Your task to perform on an android device: uninstall "Google Translate" Image 0: 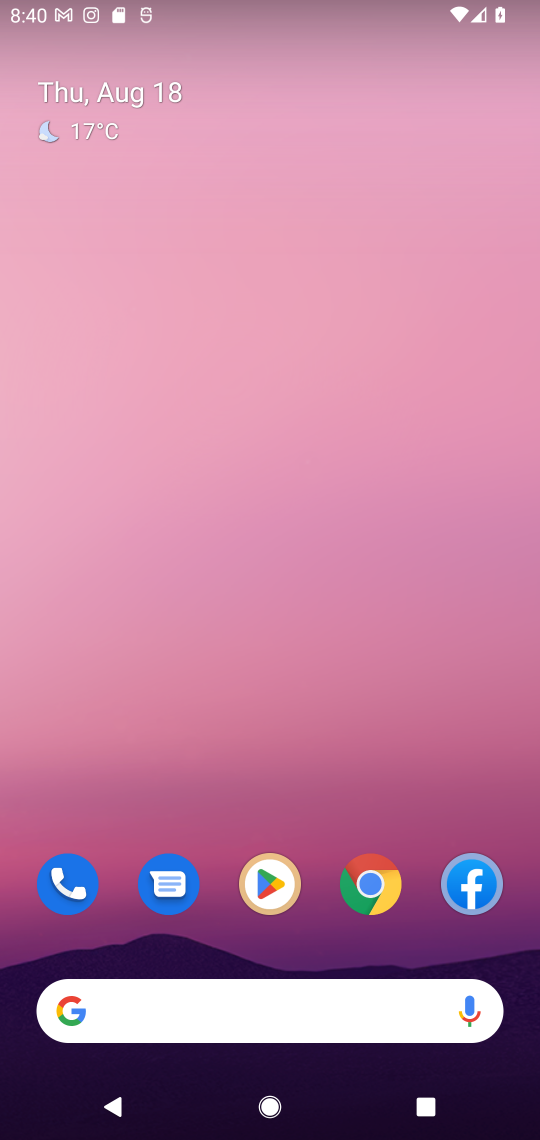
Step 0: drag from (260, 1033) to (278, 153)
Your task to perform on an android device: uninstall "Google Translate" Image 1: 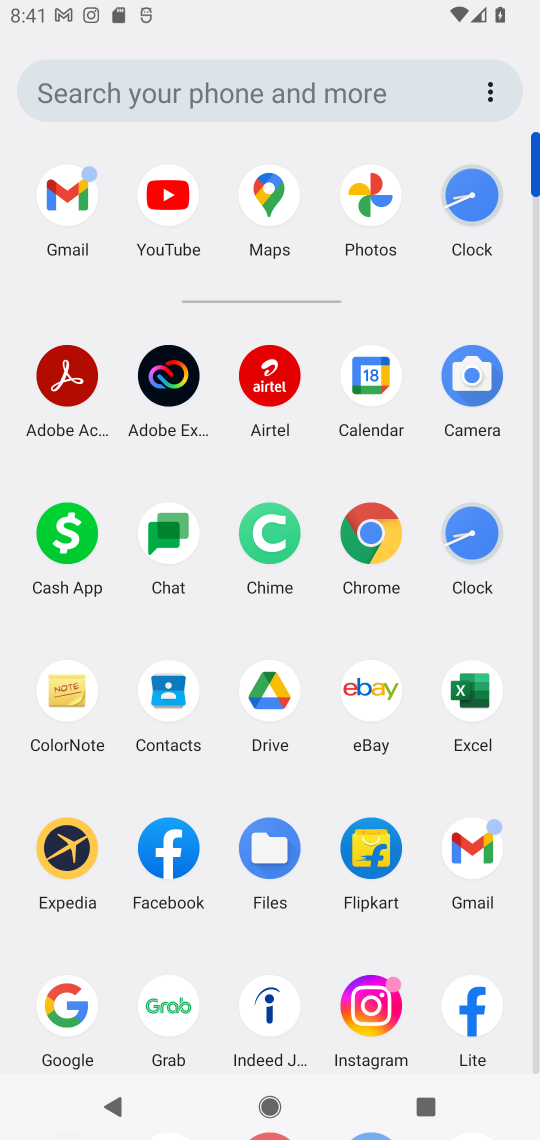
Step 1: drag from (317, 821) to (310, 290)
Your task to perform on an android device: uninstall "Google Translate" Image 2: 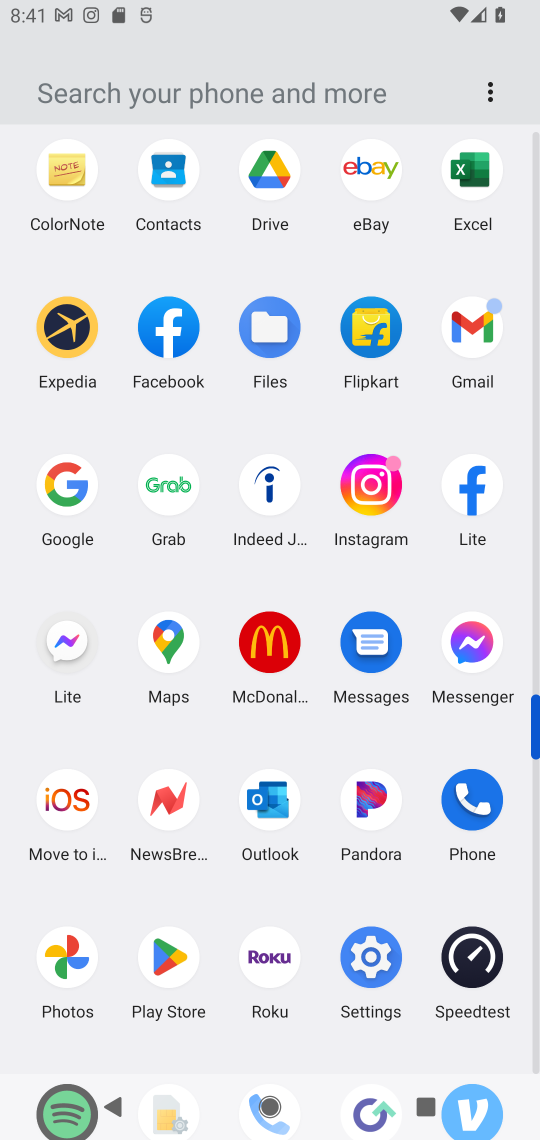
Step 2: click (173, 952)
Your task to perform on an android device: uninstall "Google Translate" Image 3: 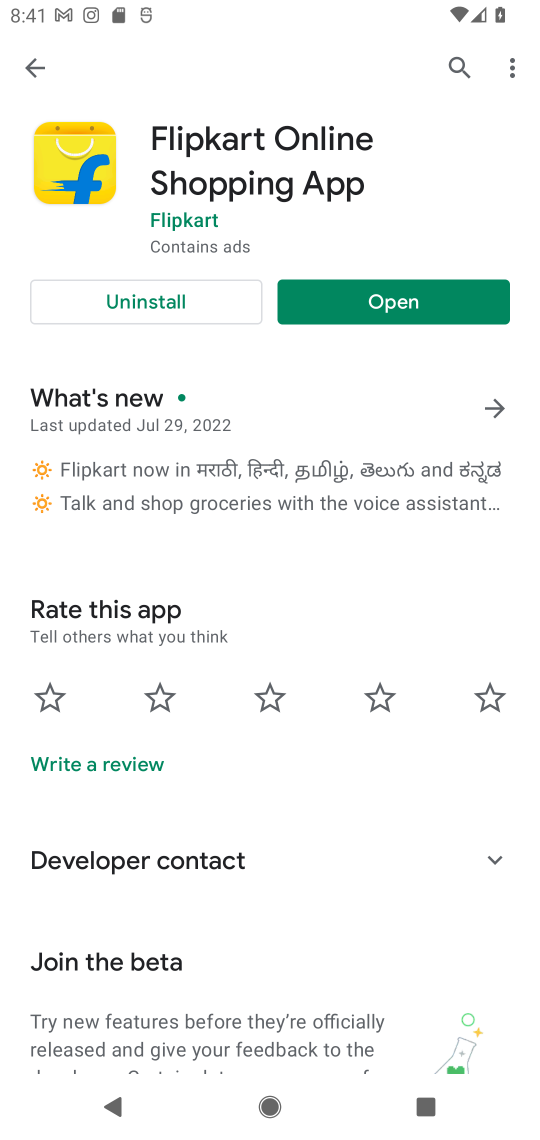
Step 3: press back button
Your task to perform on an android device: uninstall "Google Translate" Image 4: 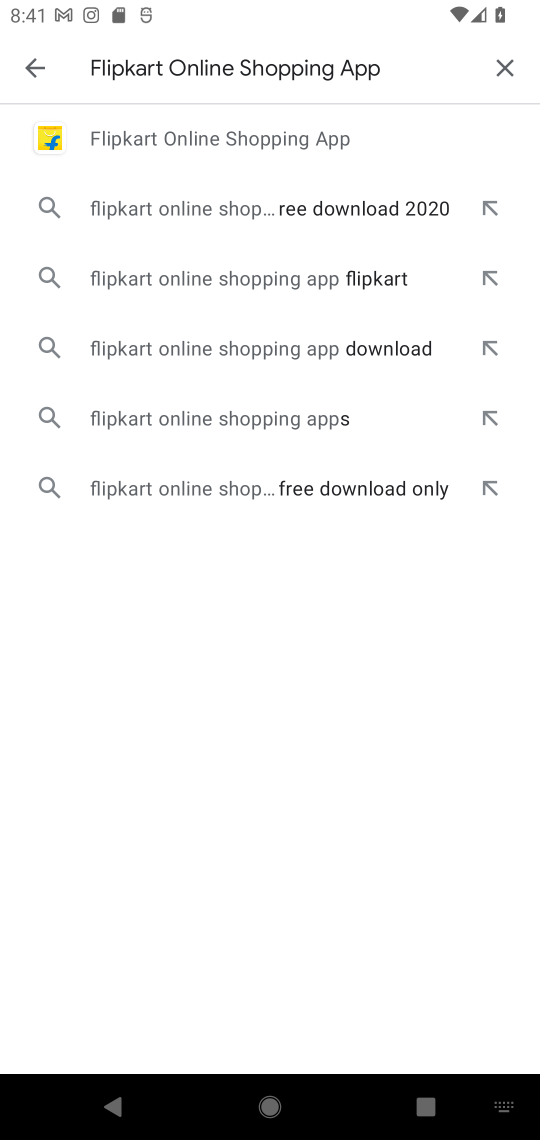
Step 4: click (502, 57)
Your task to perform on an android device: uninstall "Google Translate" Image 5: 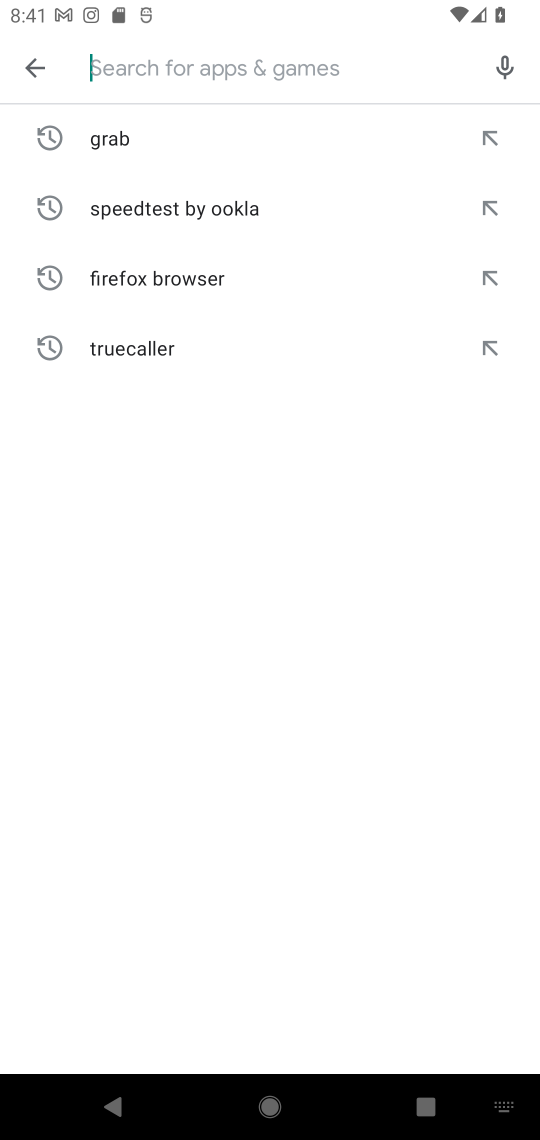
Step 5: press back button
Your task to perform on an android device: uninstall "Google Translate" Image 6: 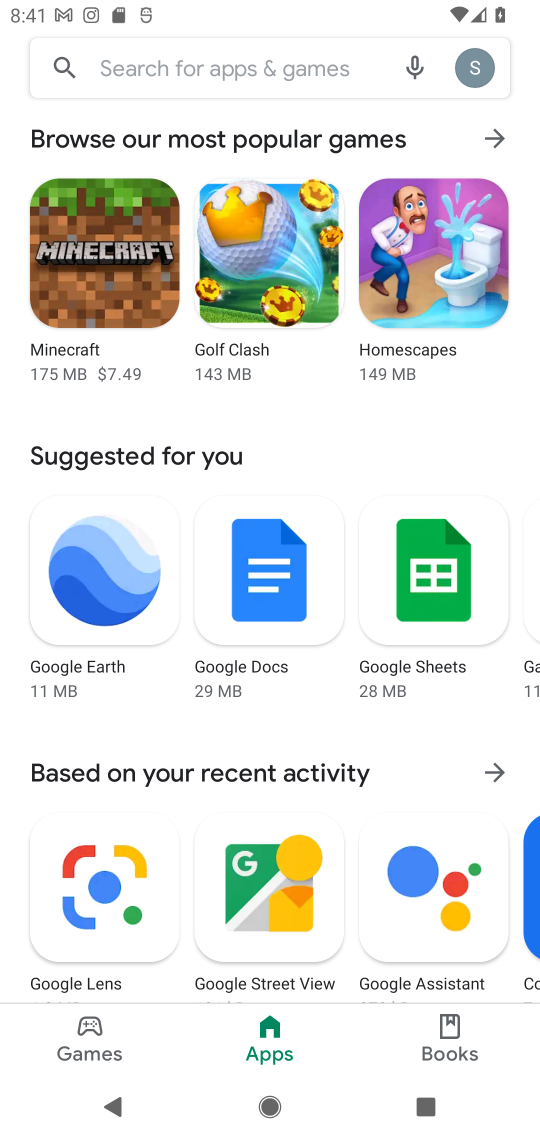
Step 6: click (274, 79)
Your task to perform on an android device: uninstall "Google Translate" Image 7: 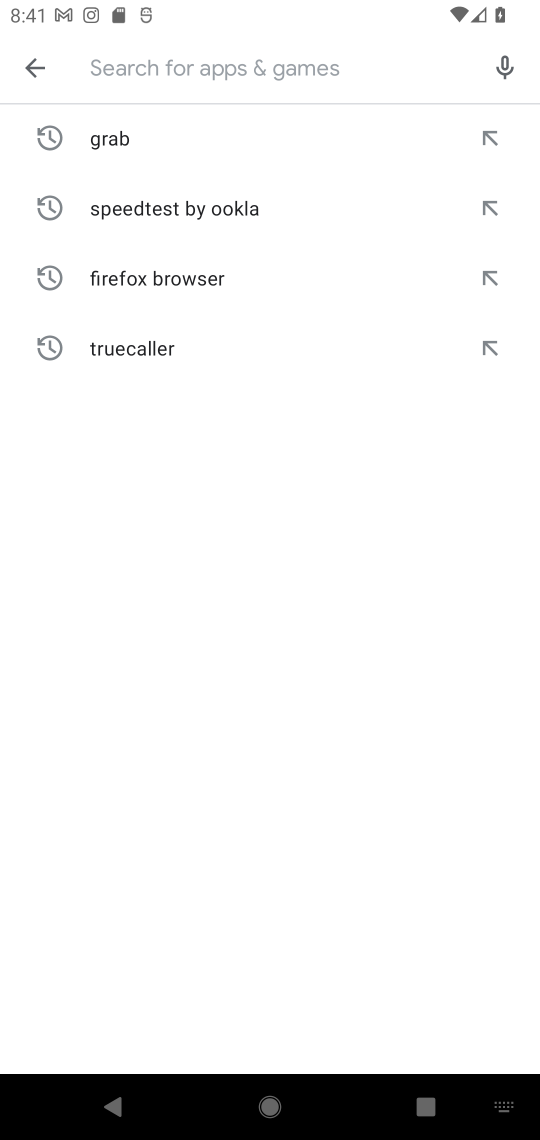
Step 7: type "Google Translate"
Your task to perform on an android device: uninstall "Google Translate" Image 8: 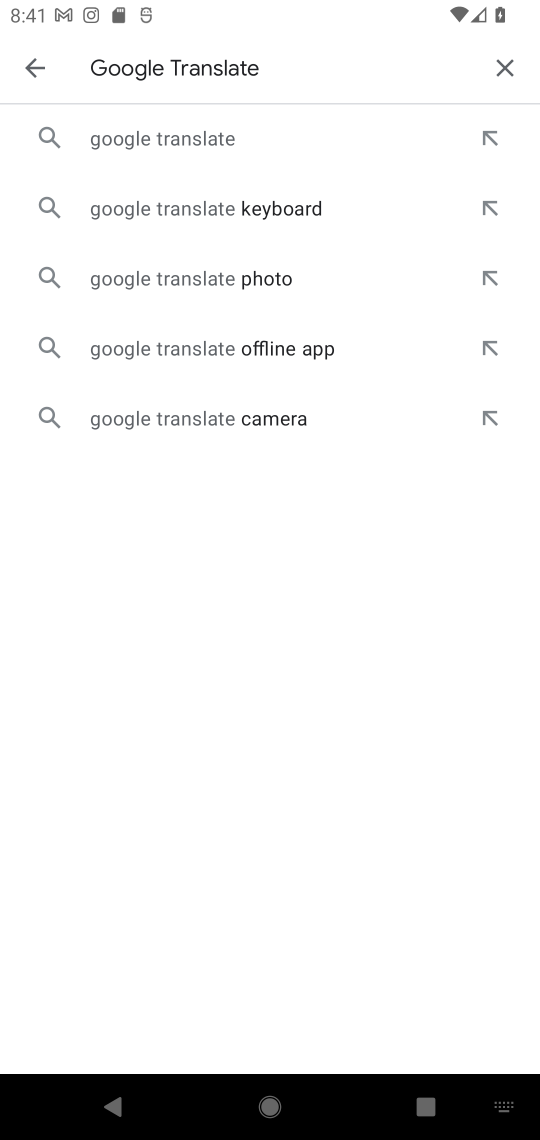
Step 8: click (190, 151)
Your task to perform on an android device: uninstall "Google Translate" Image 9: 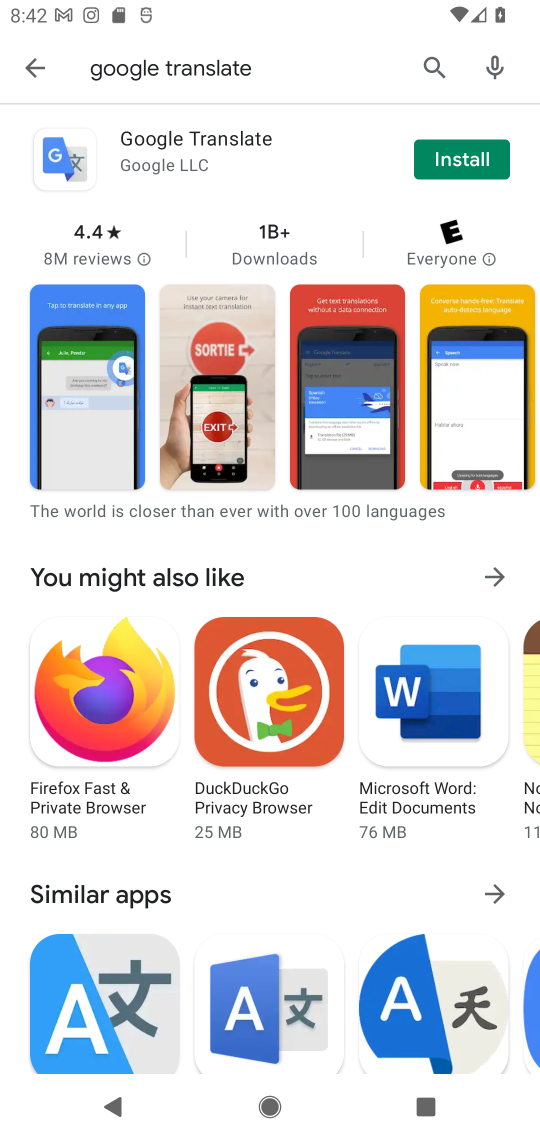
Step 9: task complete